Your task to perform on an android device: move a message to another label in the gmail app Image 0: 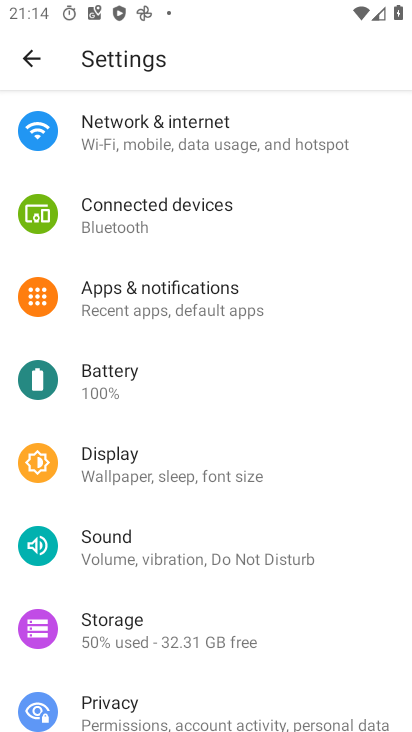
Step 0: press home button
Your task to perform on an android device: move a message to another label in the gmail app Image 1: 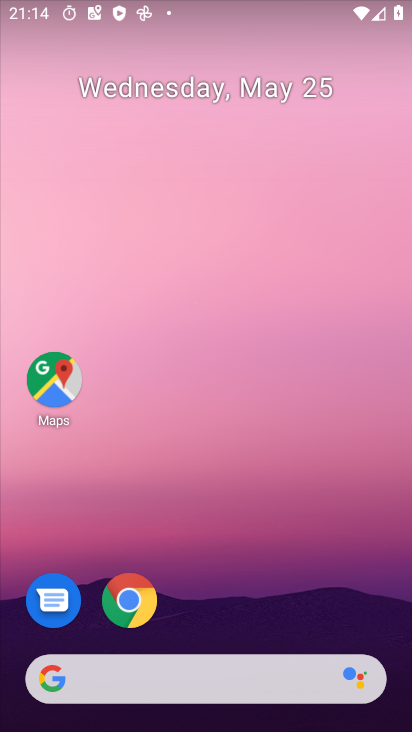
Step 1: drag from (375, 579) to (333, 195)
Your task to perform on an android device: move a message to another label in the gmail app Image 2: 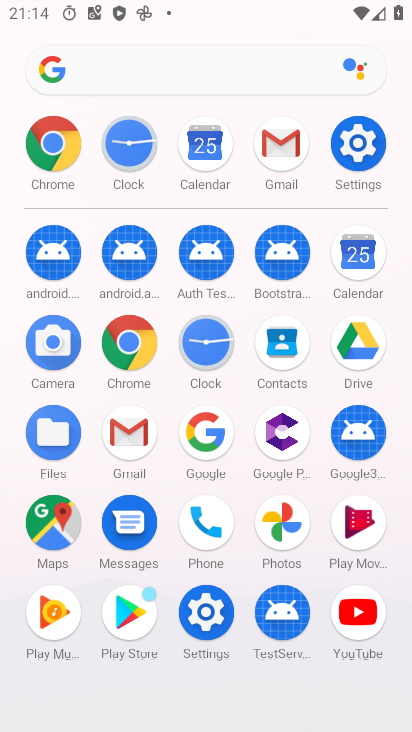
Step 2: click (133, 435)
Your task to perform on an android device: move a message to another label in the gmail app Image 3: 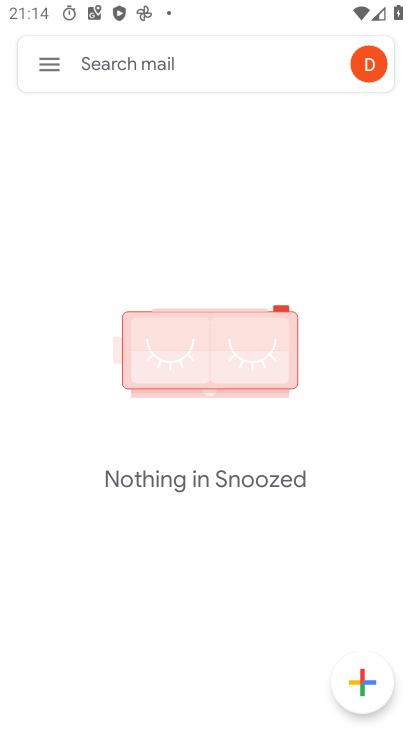
Step 3: click (56, 60)
Your task to perform on an android device: move a message to another label in the gmail app Image 4: 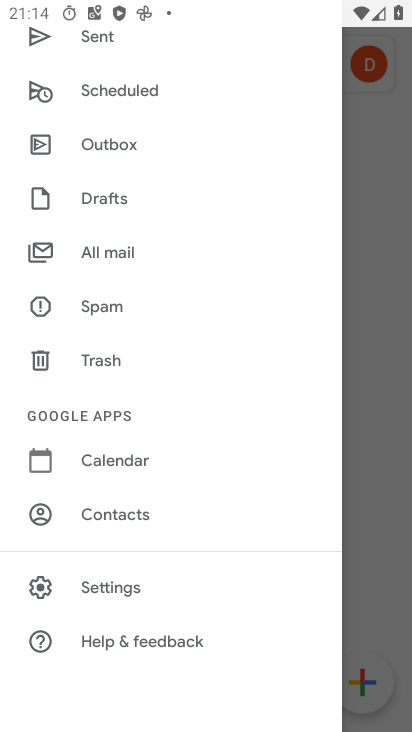
Step 4: drag from (196, 180) to (203, 503)
Your task to perform on an android device: move a message to another label in the gmail app Image 5: 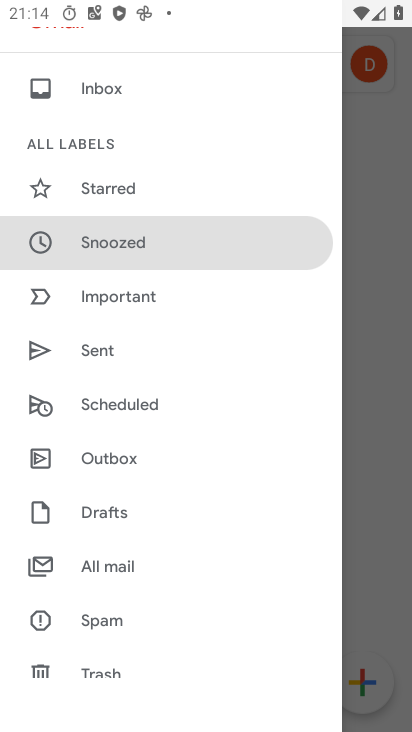
Step 5: click (144, 564)
Your task to perform on an android device: move a message to another label in the gmail app Image 6: 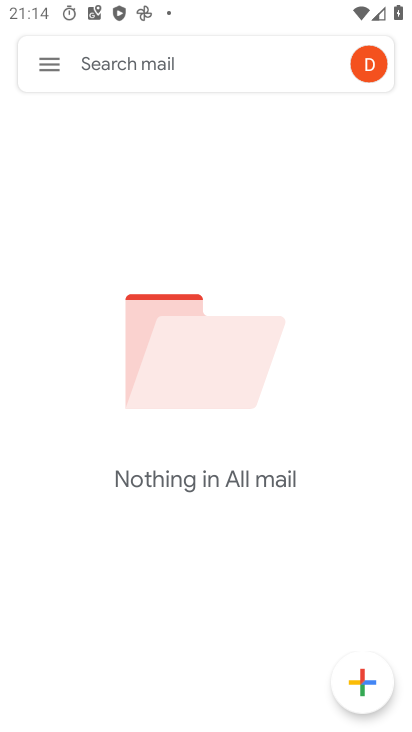
Step 6: task complete